Your task to perform on an android device: Check the weather Image 0: 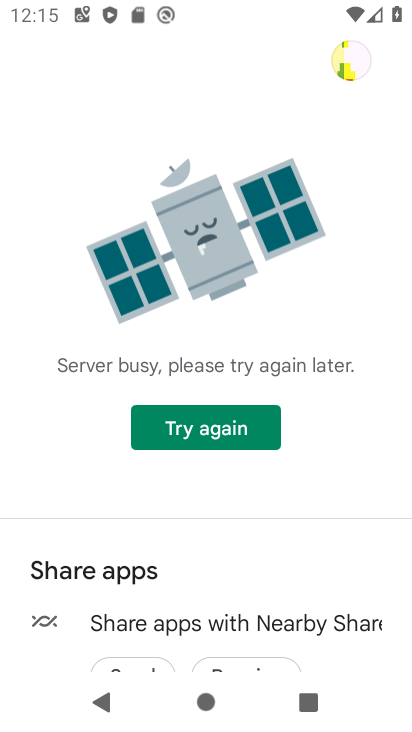
Step 0: press home button
Your task to perform on an android device: Check the weather Image 1: 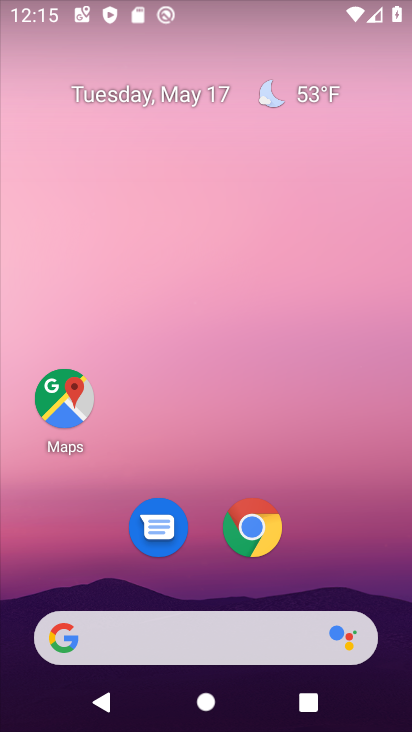
Step 1: drag from (399, 575) to (286, 212)
Your task to perform on an android device: Check the weather Image 2: 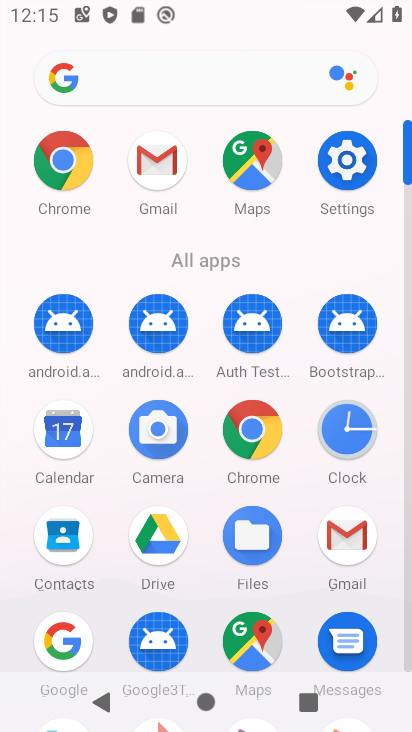
Step 2: click (243, 436)
Your task to perform on an android device: Check the weather Image 3: 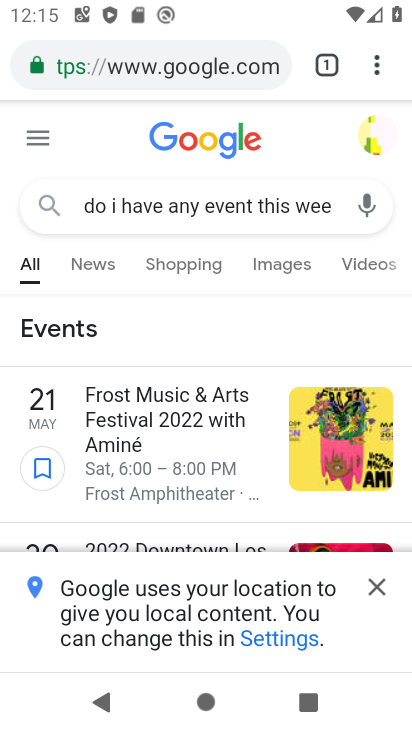
Step 3: click (150, 78)
Your task to perform on an android device: Check the weather Image 4: 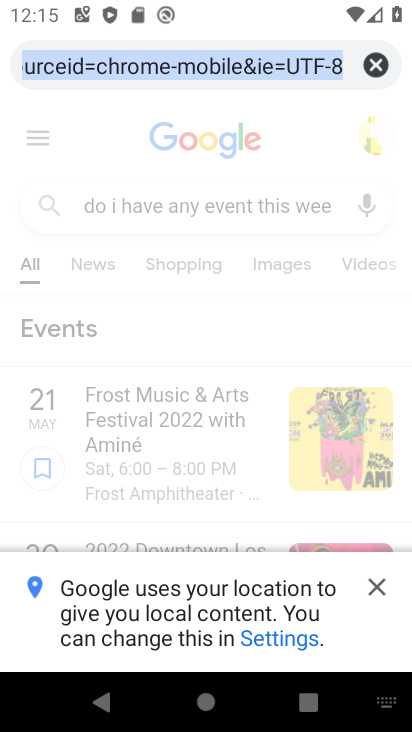
Step 4: click (379, 65)
Your task to perform on an android device: Check the weather Image 5: 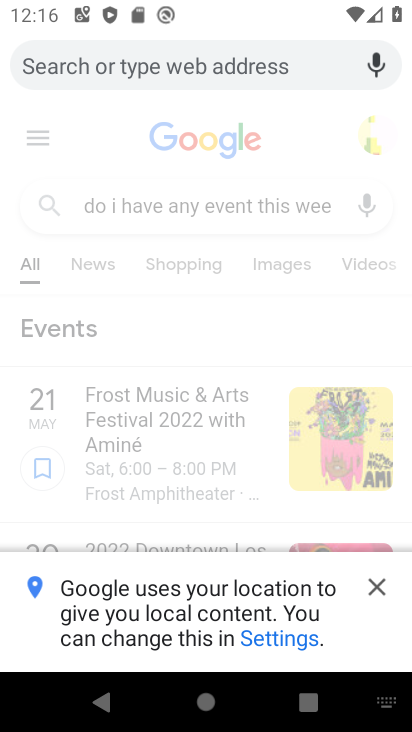
Step 5: type "check the weather"
Your task to perform on an android device: Check the weather Image 6: 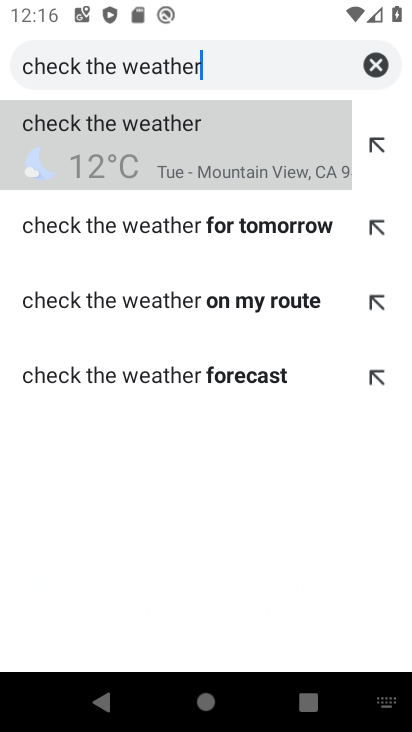
Step 6: click (197, 146)
Your task to perform on an android device: Check the weather Image 7: 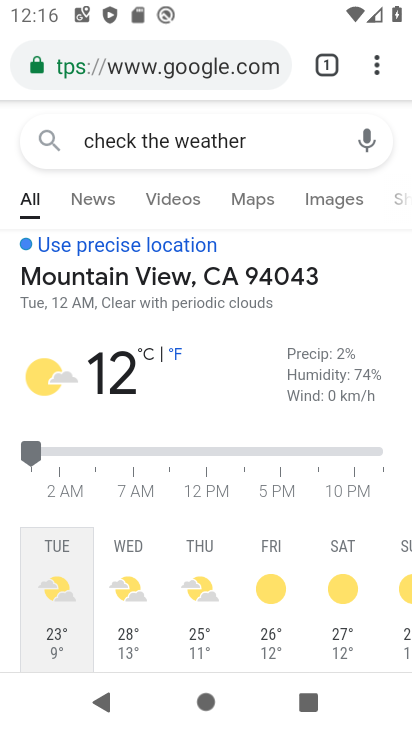
Step 7: task complete